Your task to perform on an android device: turn off data saver in the chrome app Image 0: 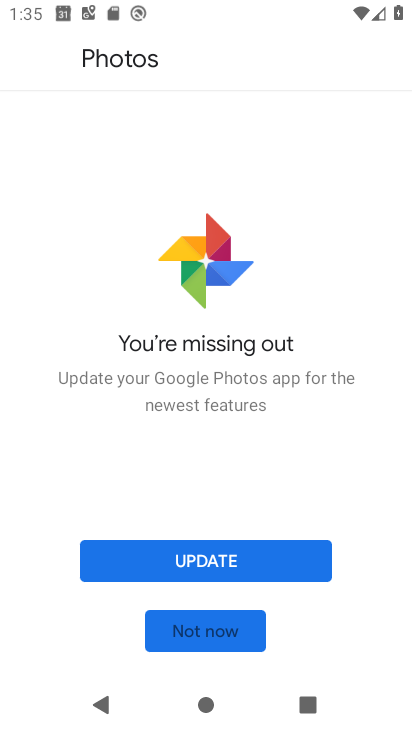
Step 0: press home button
Your task to perform on an android device: turn off data saver in the chrome app Image 1: 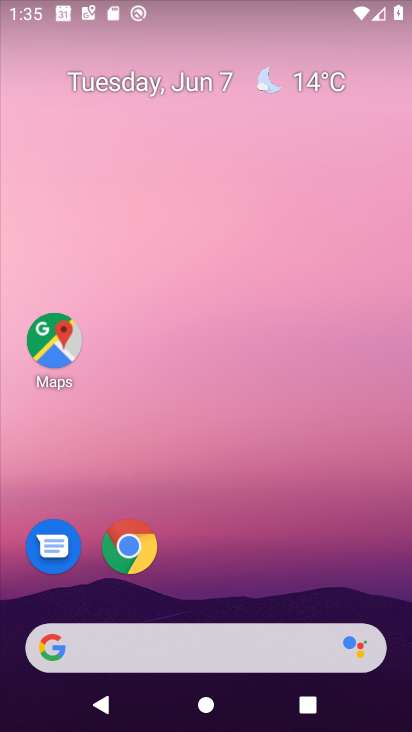
Step 1: click (133, 551)
Your task to perform on an android device: turn off data saver in the chrome app Image 2: 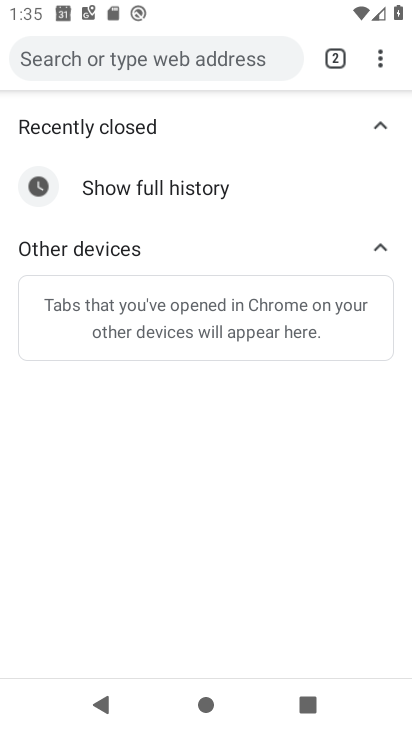
Step 2: drag from (382, 72) to (171, 486)
Your task to perform on an android device: turn off data saver in the chrome app Image 3: 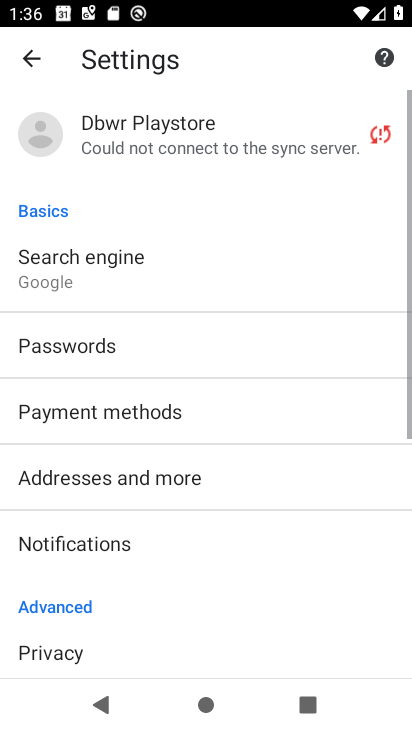
Step 3: drag from (190, 572) to (207, 201)
Your task to perform on an android device: turn off data saver in the chrome app Image 4: 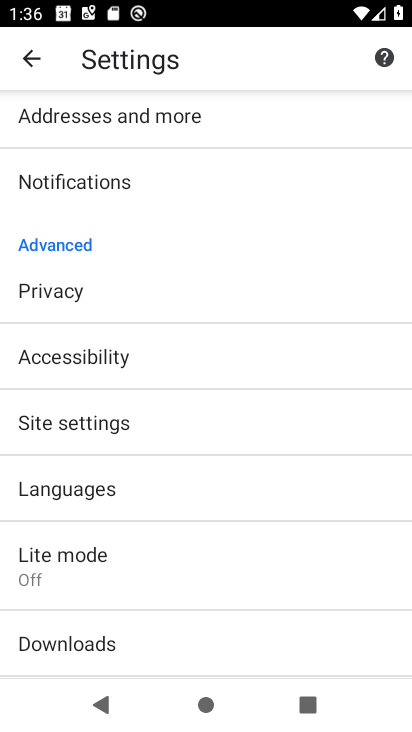
Step 4: click (52, 560)
Your task to perform on an android device: turn off data saver in the chrome app Image 5: 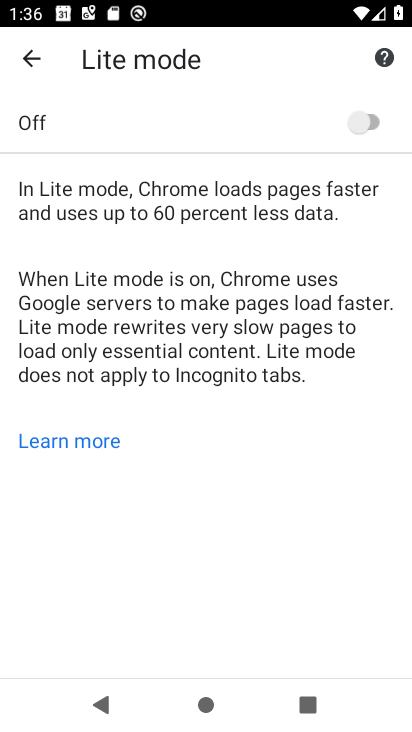
Step 5: task complete